Your task to perform on an android device: Show me the alarms in the clock app Image 0: 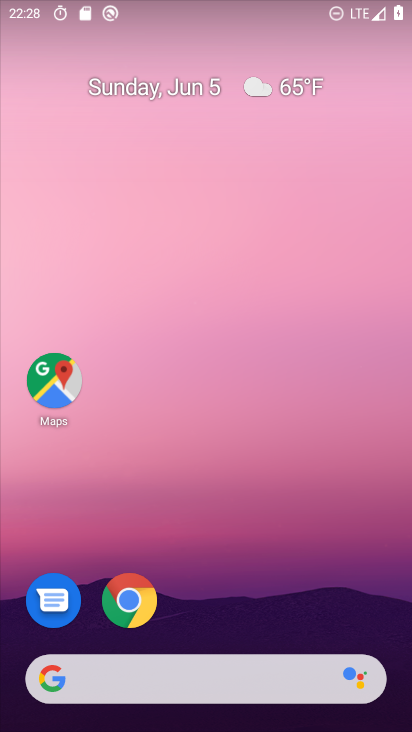
Step 0: drag from (338, 641) to (295, 269)
Your task to perform on an android device: Show me the alarms in the clock app Image 1: 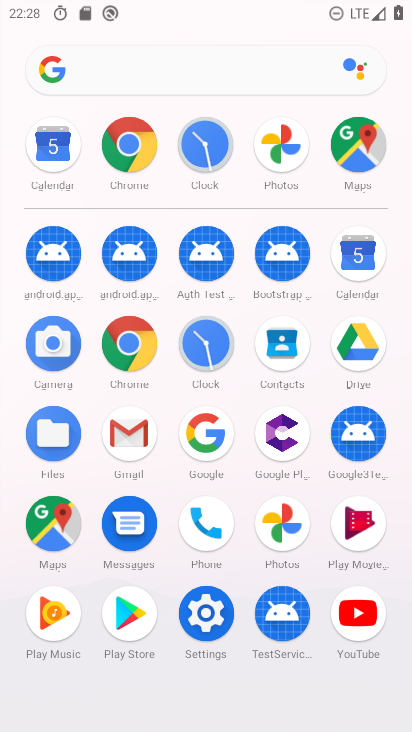
Step 1: click (216, 357)
Your task to perform on an android device: Show me the alarms in the clock app Image 2: 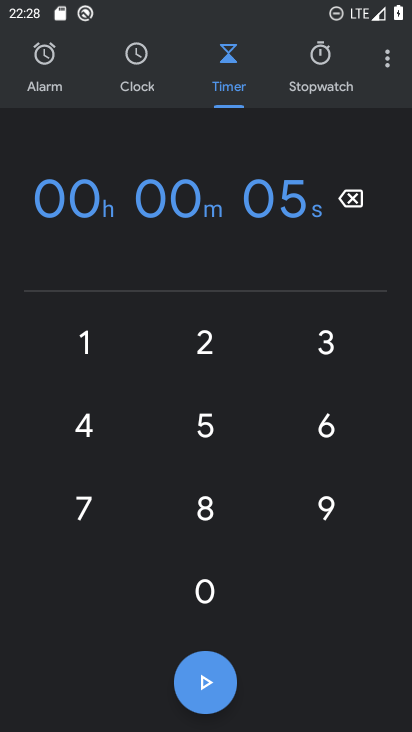
Step 2: click (44, 73)
Your task to perform on an android device: Show me the alarms in the clock app Image 3: 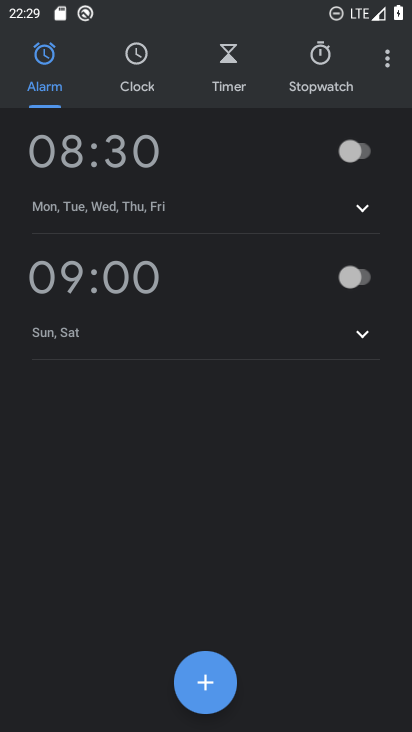
Step 3: task complete